Your task to perform on an android device: Open wifi settings Image 0: 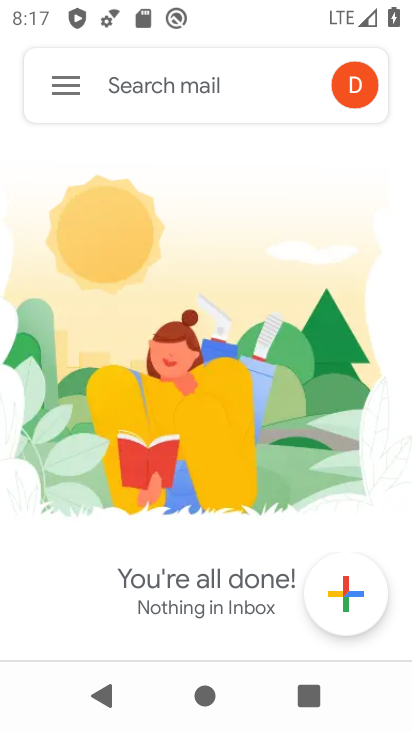
Step 0: press home button
Your task to perform on an android device: Open wifi settings Image 1: 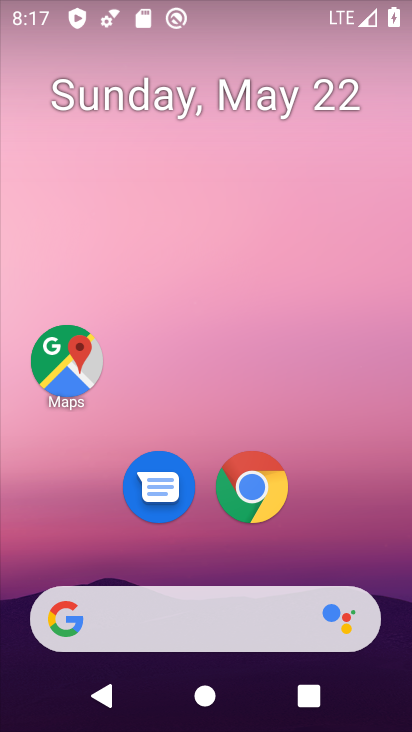
Step 1: drag from (349, 497) to (197, 6)
Your task to perform on an android device: Open wifi settings Image 2: 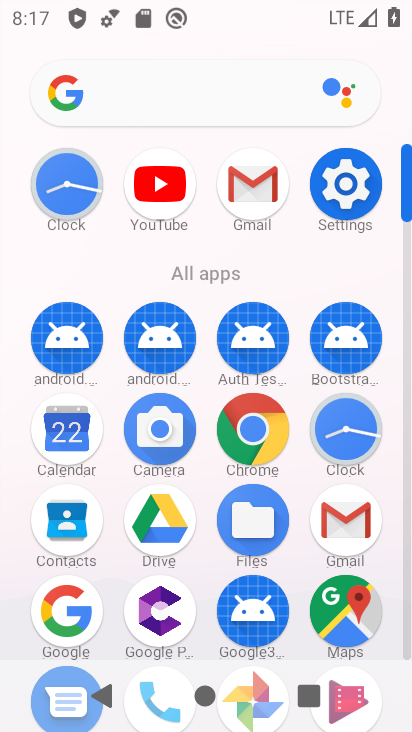
Step 2: click (360, 189)
Your task to perform on an android device: Open wifi settings Image 3: 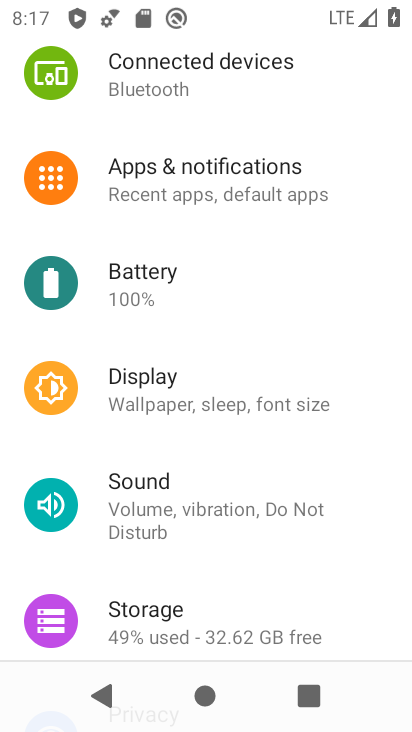
Step 3: drag from (260, 569) to (273, 604)
Your task to perform on an android device: Open wifi settings Image 4: 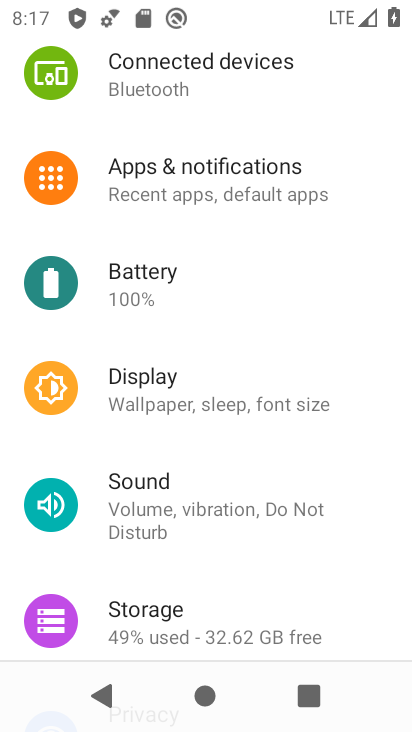
Step 4: drag from (144, 122) to (175, 636)
Your task to perform on an android device: Open wifi settings Image 5: 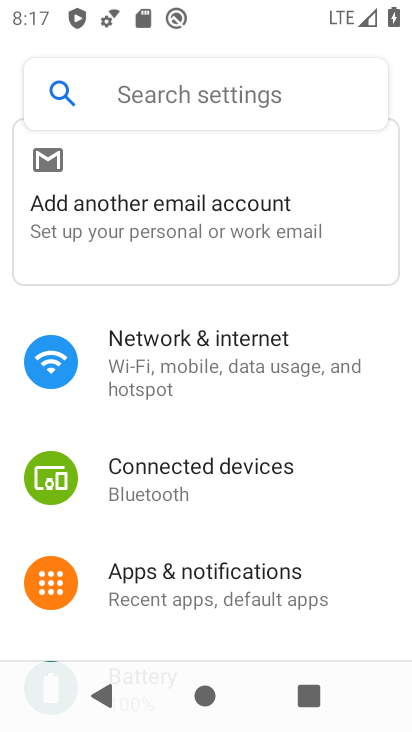
Step 5: click (199, 353)
Your task to perform on an android device: Open wifi settings Image 6: 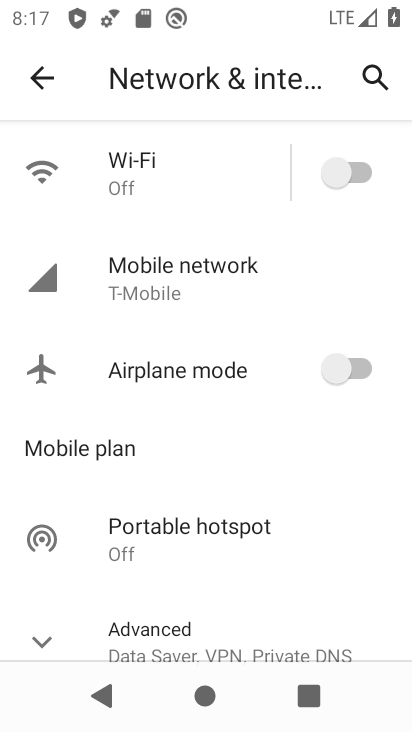
Step 6: click (138, 200)
Your task to perform on an android device: Open wifi settings Image 7: 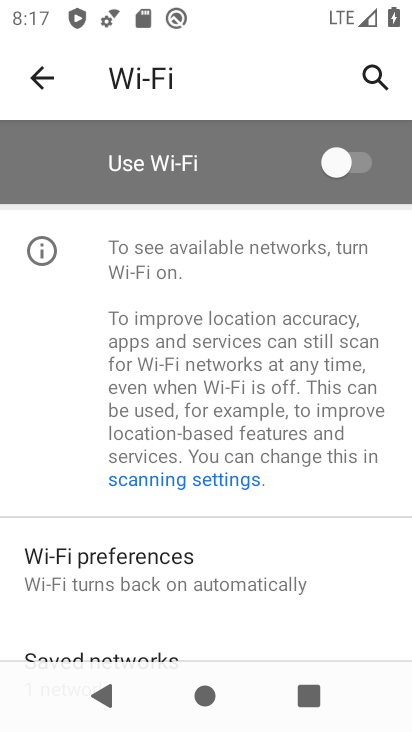
Step 7: task complete